Your task to perform on an android device: Search for Italian restaurants on Maps Image 0: 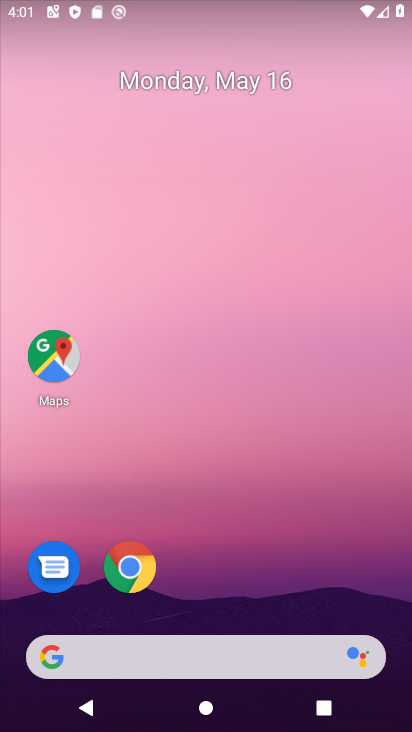
Step 0: drag from (221, 626) to (234, 10)
Your task to perform on an android device: Search for Italian restaurants on Maps Image 1: 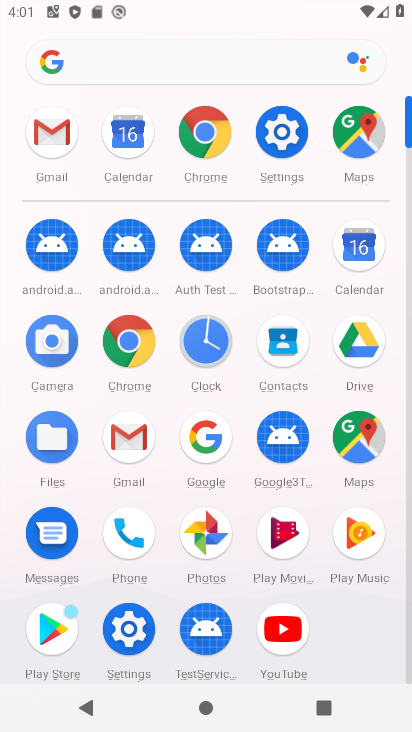
Step 1: click (354, 434)
Your task to perform on an android device: Search for Italian restaurants on Maps Image 2: 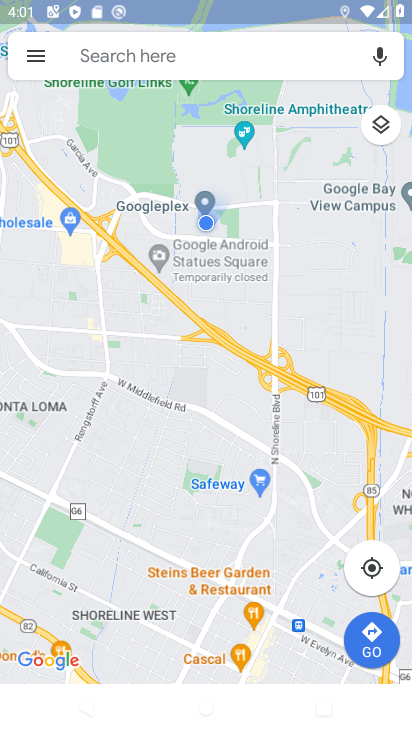
Step 2: click (278, 64)
Your task to perform on an android device: Search for Italian restaurants on Maps Image 3: 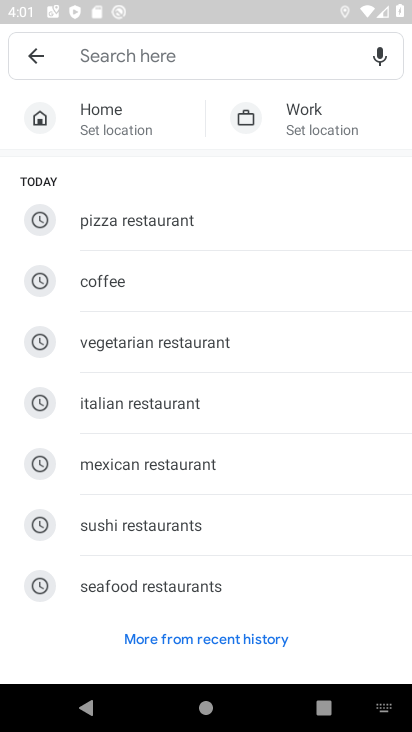
Step 3: click (177, 405)
Your task to perform on an android device: Search for Italian restaurants on Maps Image 4: 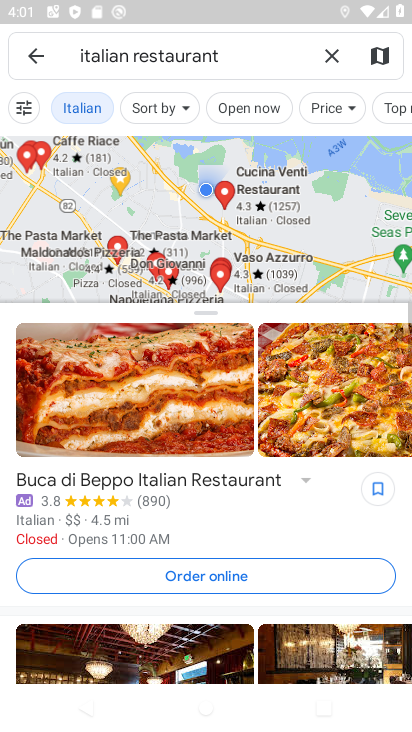
Step 4: task complete